Your task to perform on an android device: turn off notifications in google photos Image 0: 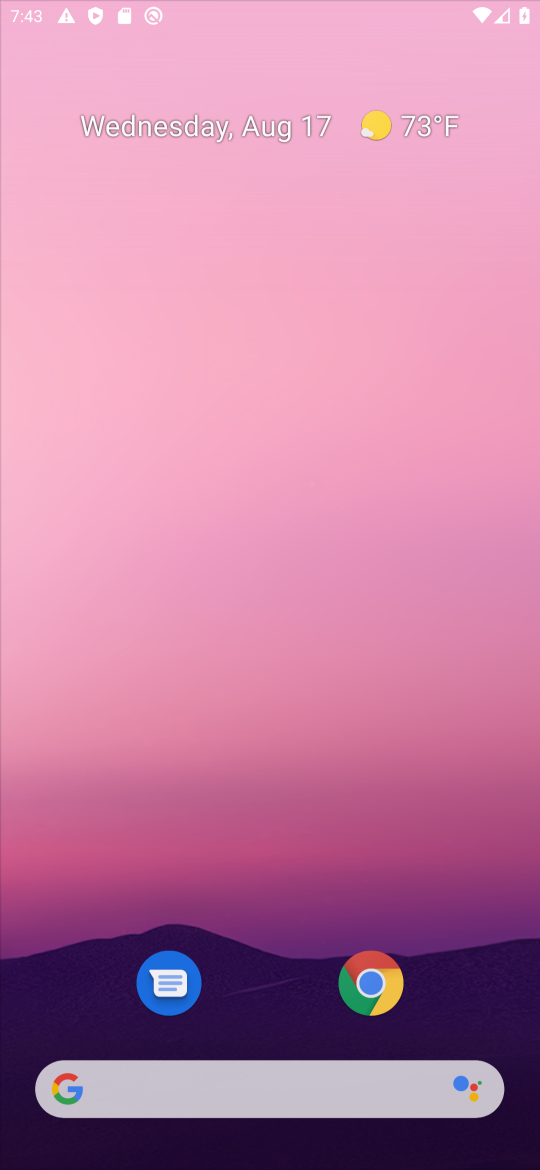
Step 0: drag from (213, 27) to (297, 107)
Your task to perform on an android device: turn off notifications in google photos Image 1: 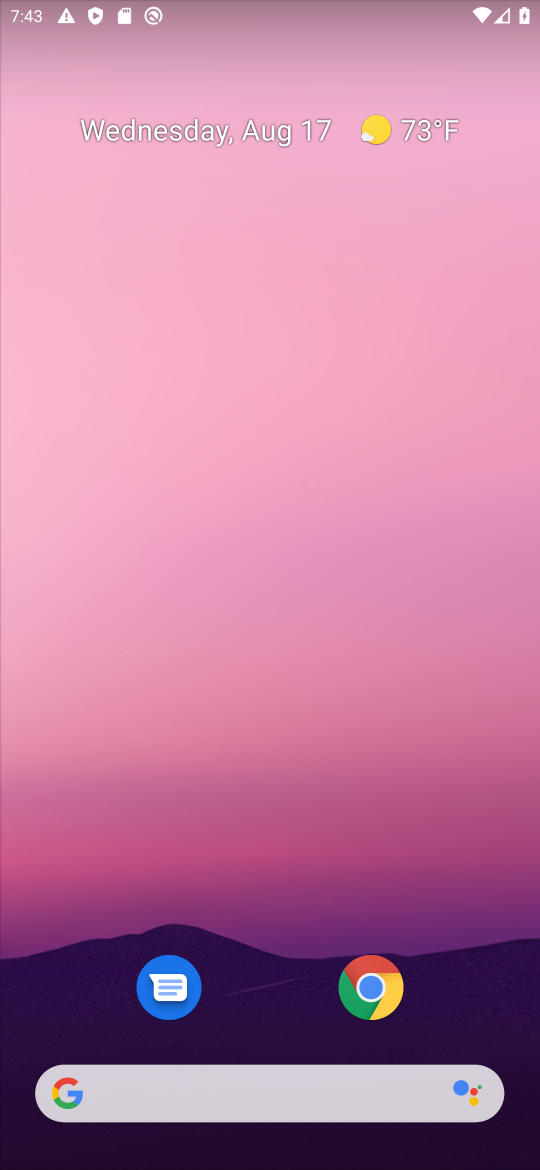
Step 1: drag from (481, 1026) to (229, 55)
Your task to perform on an android device: turn off notifications in google photos Image 2: 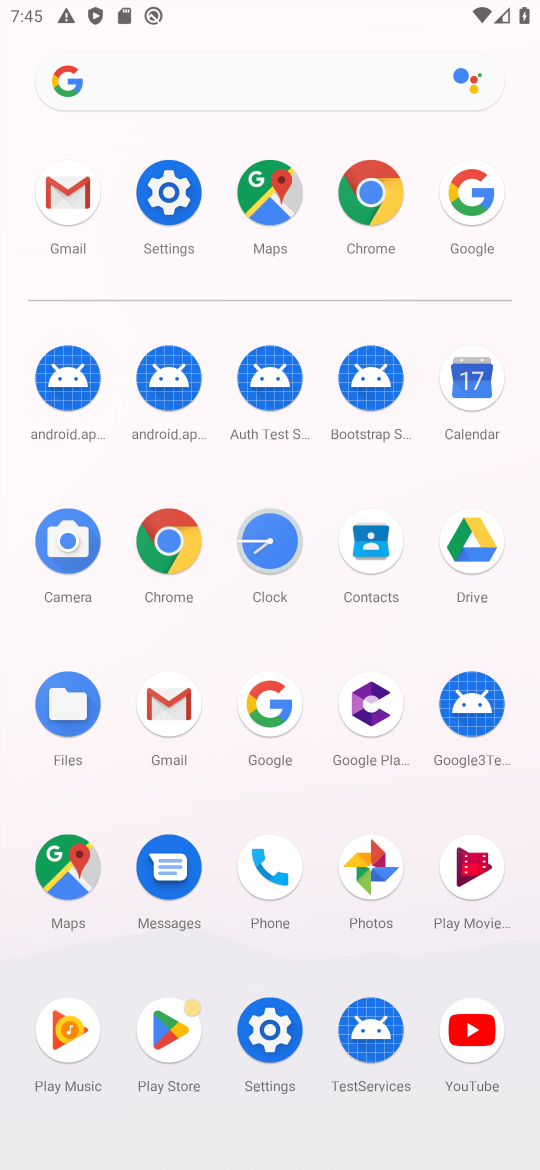
Step 2: click (387, 854)
Your task to perform on an android device: turn off notifications in google photos Image 3: 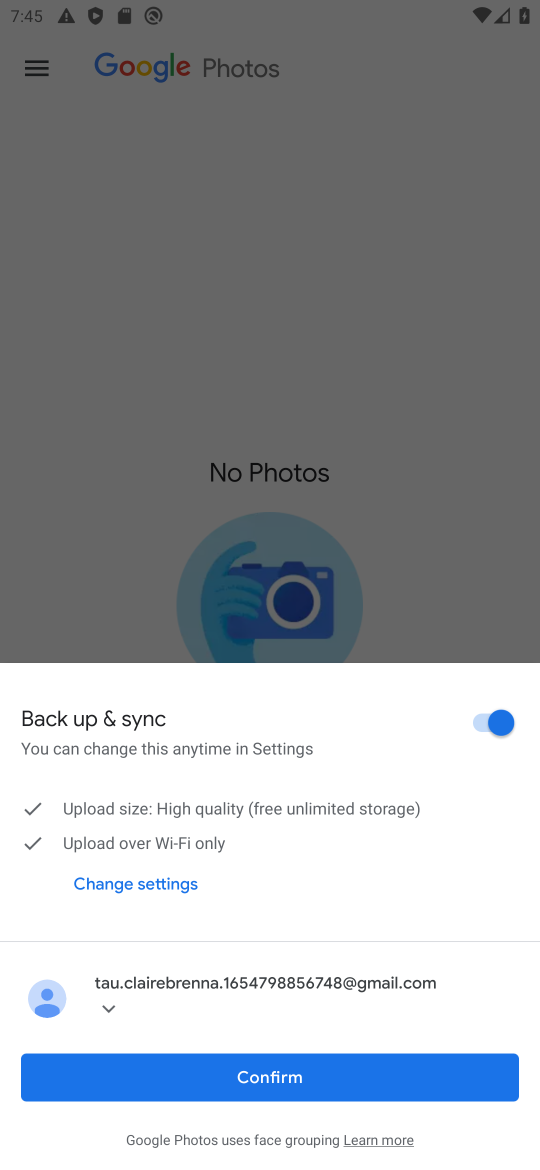
Step 3: click (260, 1070)
Your task to perform on an android device: turn off notifications in google photos Image 4: 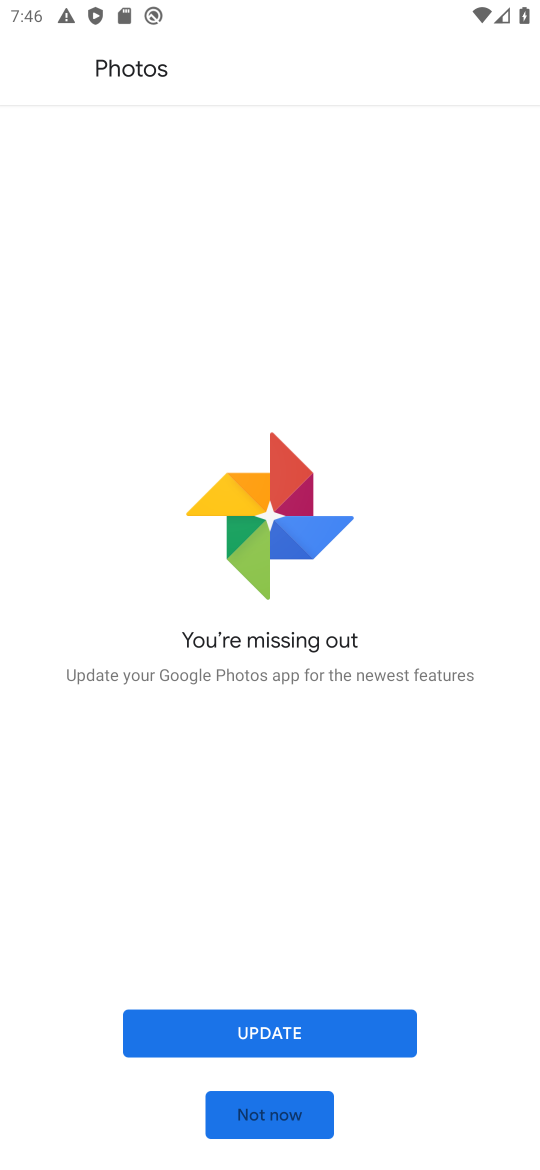
Step 4: task complete